Your task to perform on an android device: Open internet settings Image 0: 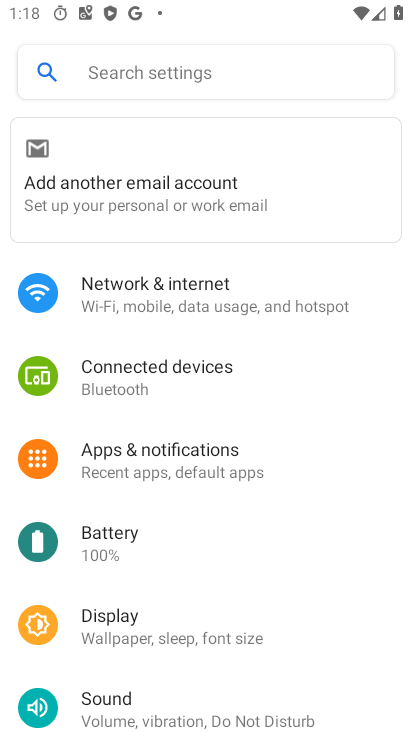
Step 0: drag from (227, 654) to (372, 133)
Your task to perform on an android device: Open internet settings Image 1: 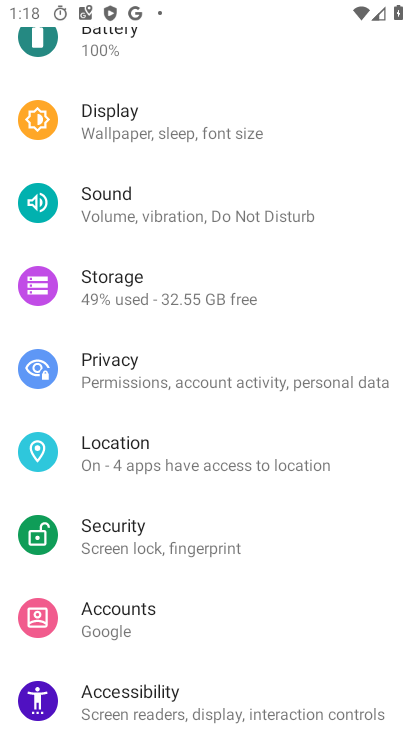
Step 1: drag from (330, 170) to (198, 652)
Your task to perform on an android device: Open internet settings Image 2: 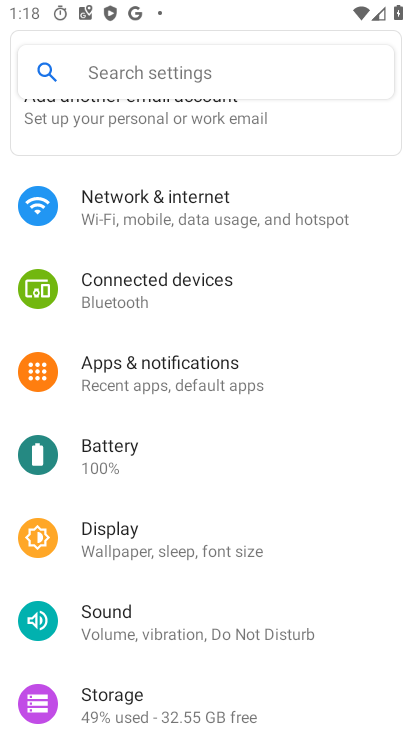
Step 2: click (227, 215)
Your task to perform on an android device: Open internet settings Image 3: 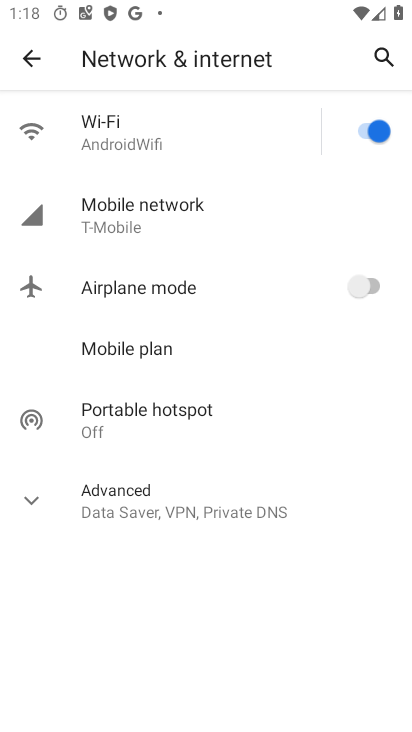
Step 3: task complete